Your task to perform on an android device: Go to ESPN.com Image 0: 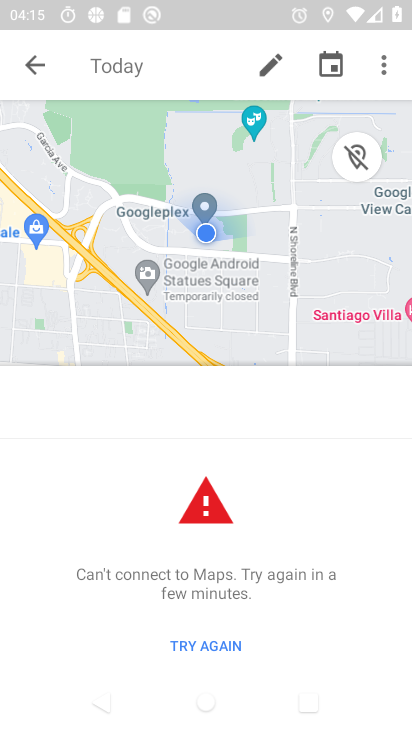
Step 0: press back button
Your task to perform on an android device: Go to ESPN.com Image 1: 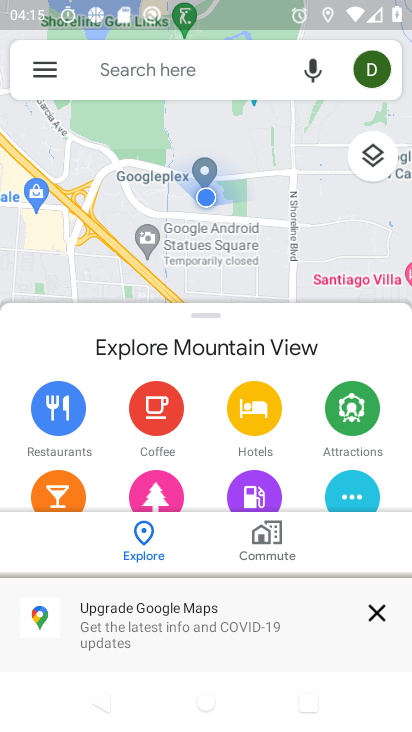
Step 1: press home button
Your task to perform on an android device: Go to ESPN.com Image 2: 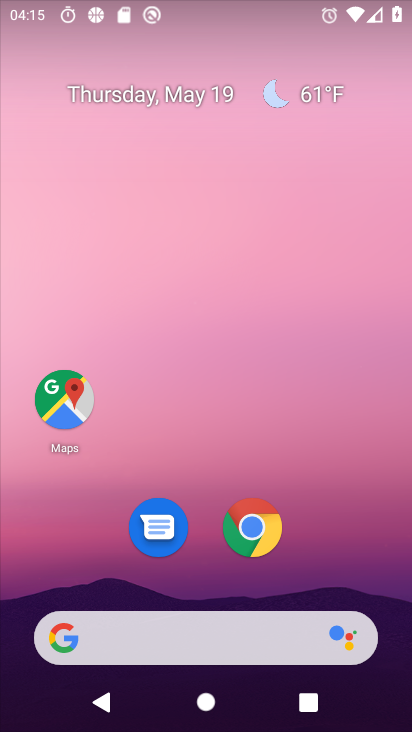
Step 2: click (238, 521)
Your task to perform on an android device: Go to ESPN.com Image 3: 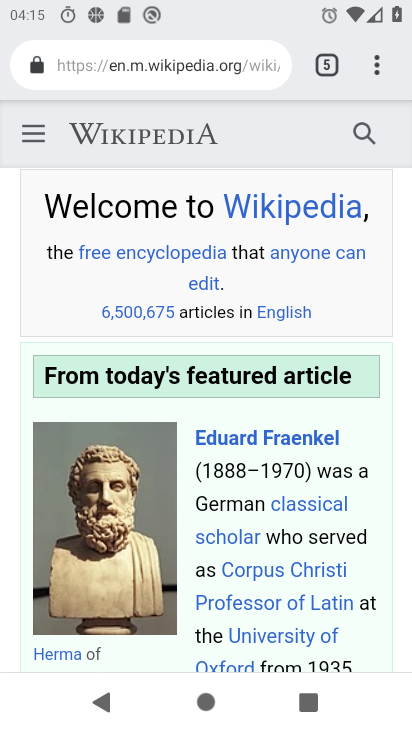
Step 3: click (320, 72)
Your task to perform on an android device: Go to ESPN.com Image 4: 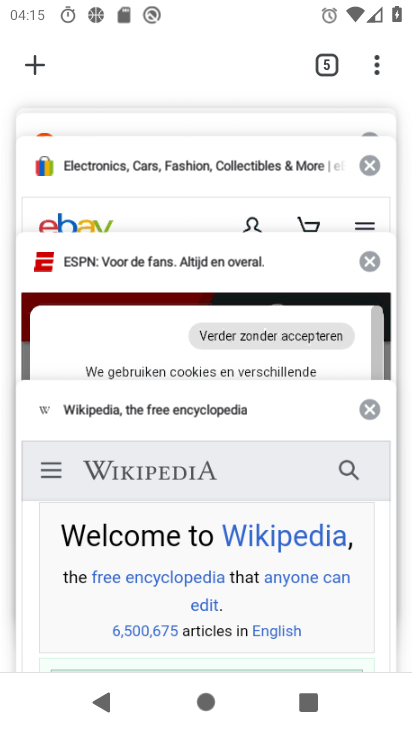
Step 4: drag from (96, 167) to (143, 200)
Your task to perform on an android device: Go to ESPN.com Image 5: 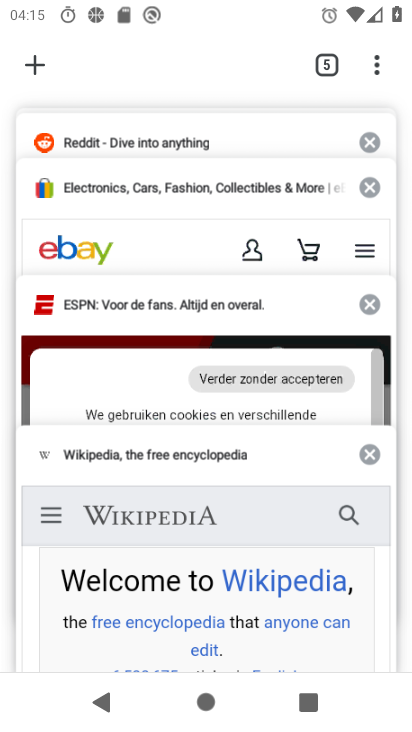
Step 5: click (101, 307)
Your task to perform on an android device: Go to ESPN.com Image 6: 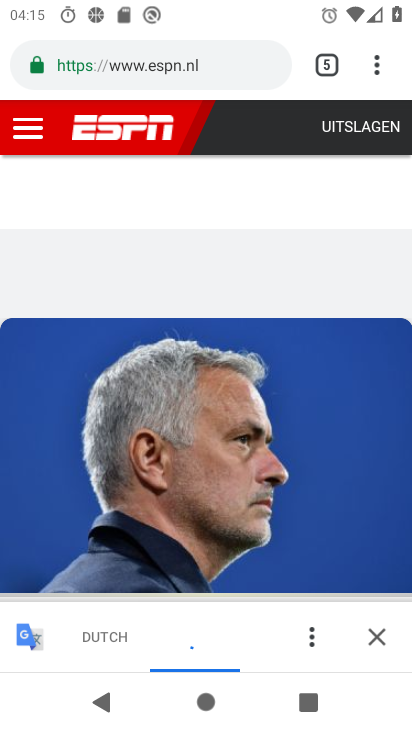
Step 6: task complete